Your task to perform on an android device: Show me the alarms in the clock app Image 0: 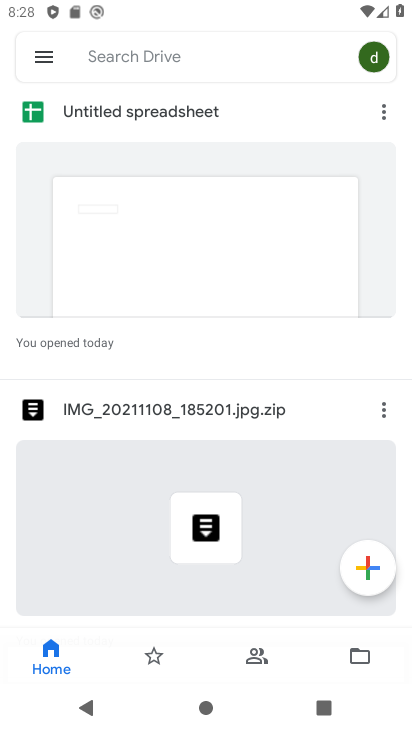
Step 0: press home button
Your task to perform on an android device: Show me the alarms in the clock app Image 1: 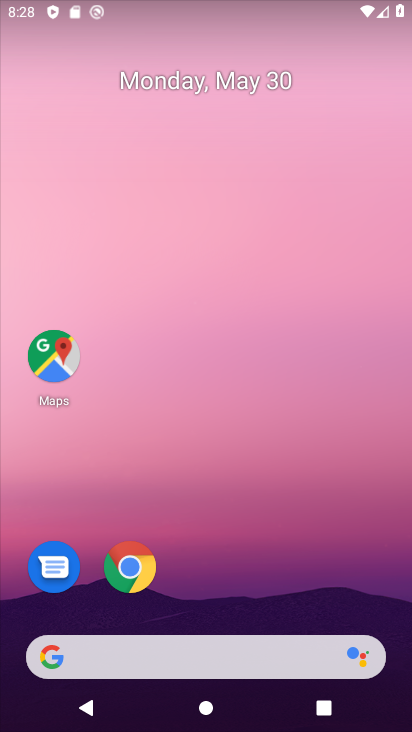
Step 1: drag from (208, 601) to (224, 141)
Your task to perform on an android device: Show me the alarms in the clock app Image 2: 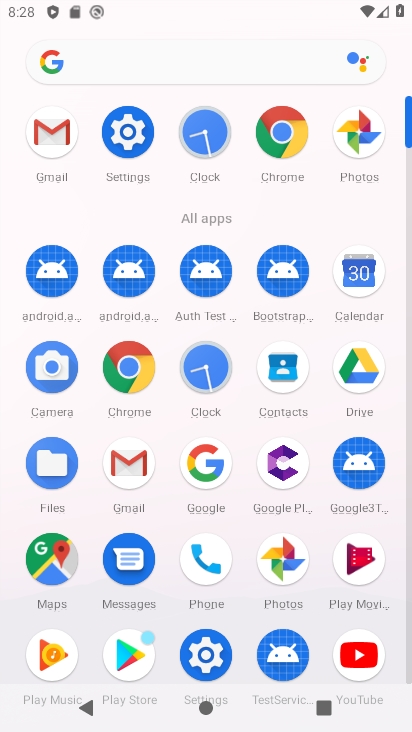
Step 2: click (218, 142)
Your task to perform on an android device: Show me the alarms in the clock app Image 3: 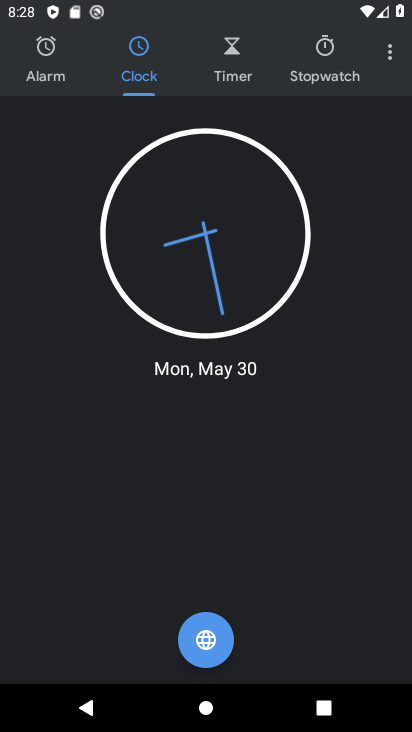
Step 3: click (60, 74)
Your task to perform on an android device: Show me the alarms in the clock app Image 4: 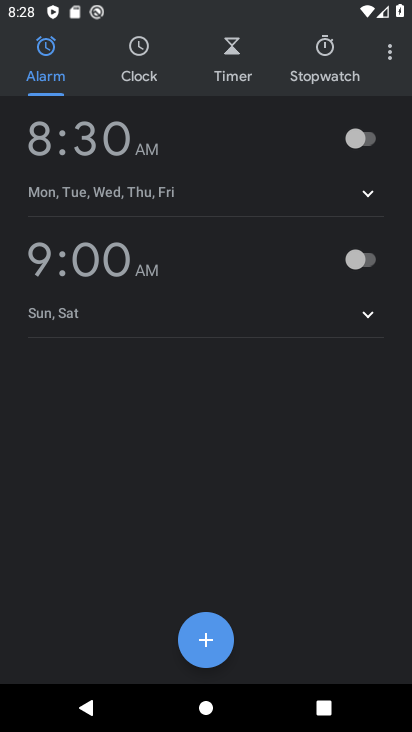
Step 4: task complete